Your task to perform on an android device: check google app version Image 0: 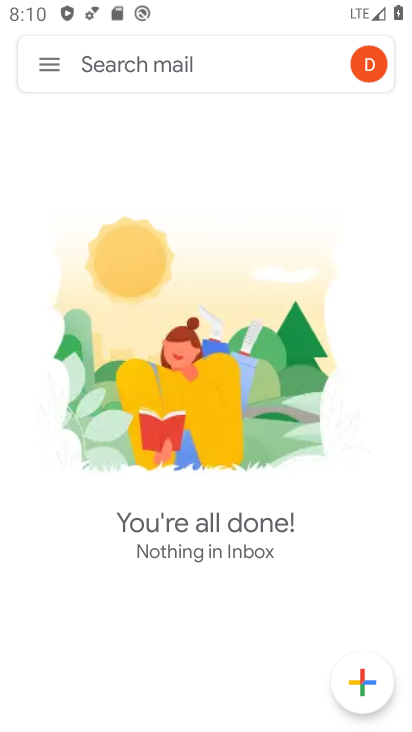
Step 0: press home button
Your task to perform on an android device: check google app version Image 1: 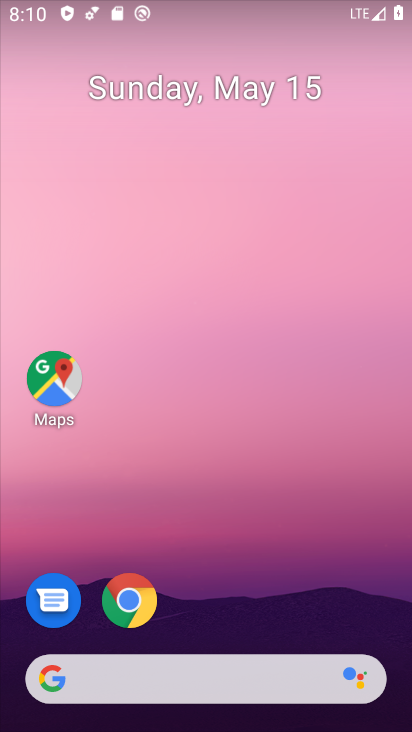
Step 1: drag from (214, 616) to (89, 47)
Your task to perform on an android device: check google app version Image 2: 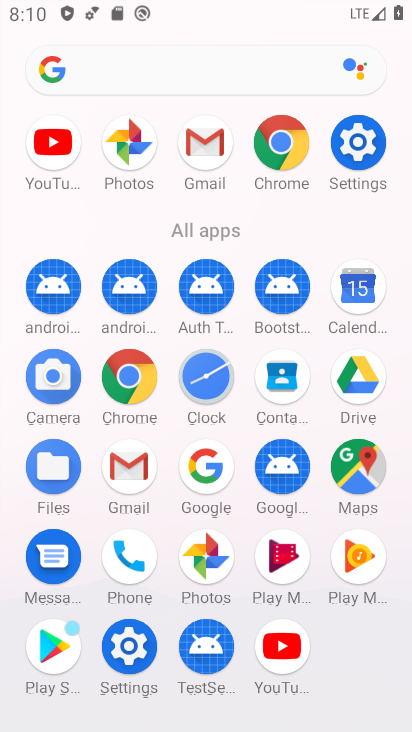
Step 2: click (198, 463)
Your task to perform on an android device: check google app version Image 3: 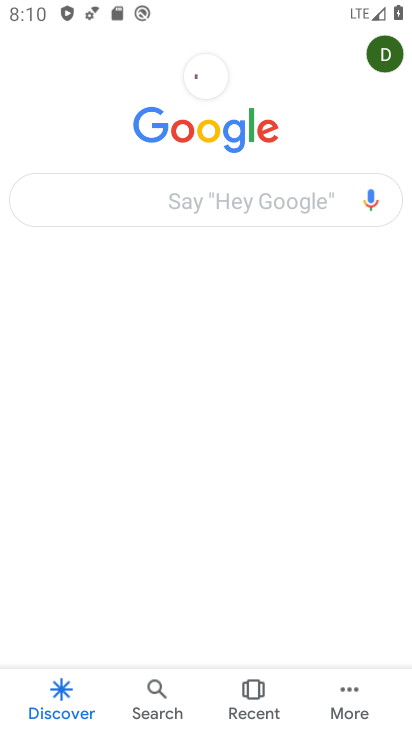
Step 3: click (324, 698)
Your task to perform on an android device: check google app version Image 4: 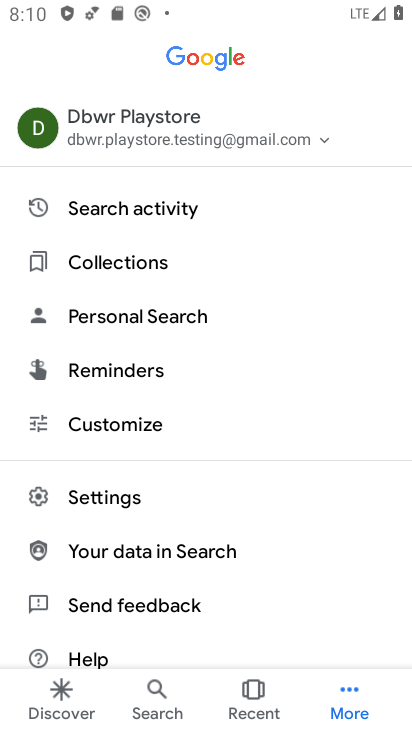
Step 4: click (85, 502)
Your task to perform on an android device: check google app version Image 5: 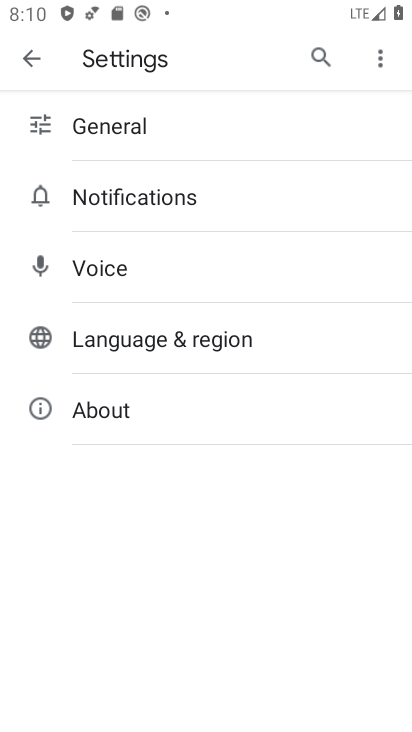
Step 5: click (87, 424)
Your task to perform on an android device: check google app version Image 6: 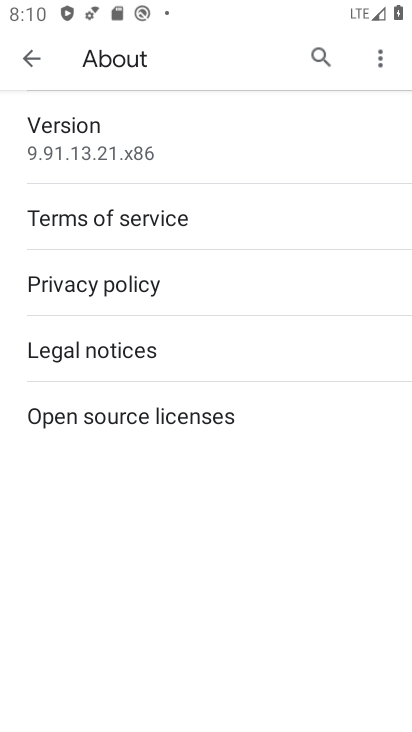
Step 6: task complete